Your task to perform on an android device: Open Google Maps and go to "Timeline" Image 0: 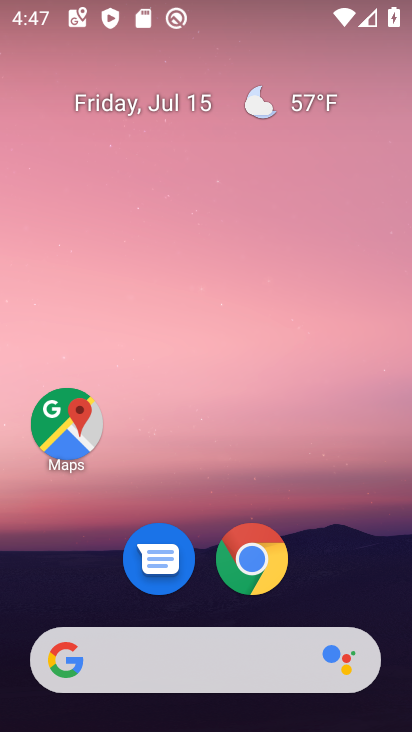
Step 0: click (44, 402)
Your task to perform on an android device: Open Google Maps and go to "Timeline" Image 1: 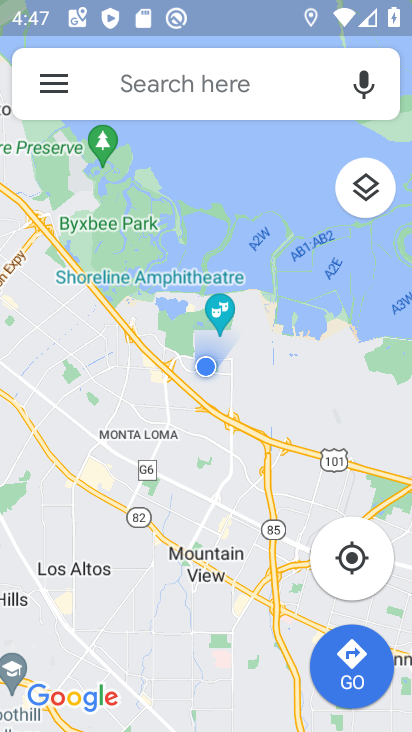
Step 1: click (49, 75)
Your task to perform on an android device: Open Google Maps and go to "Timeline" Image 2: 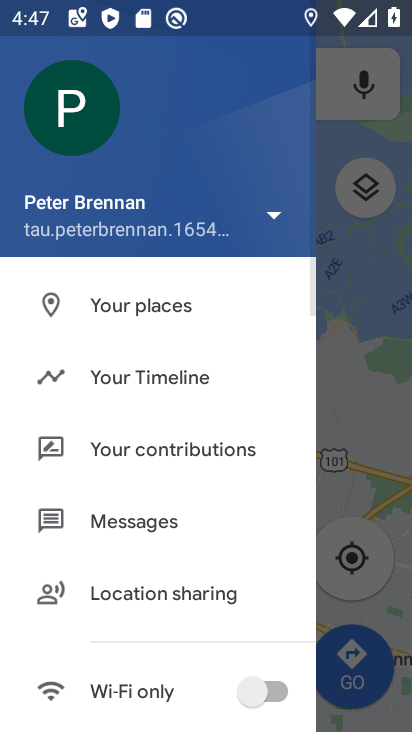
Step 2: click (153, 380)
Your task to perform on an android device: Open Google Maps and go to "Timeline" Image 3: 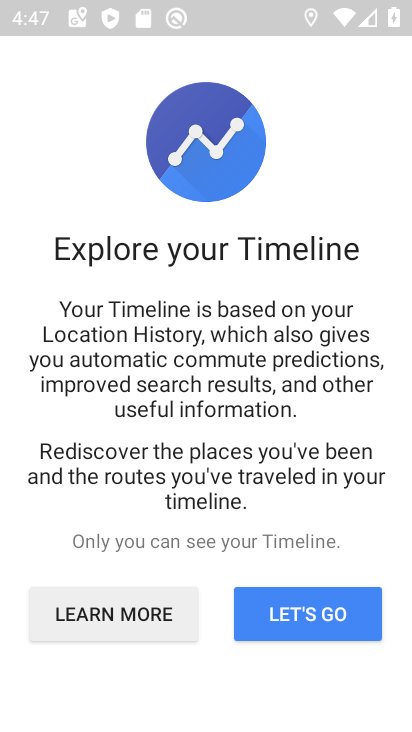
Step 3: click (355, 605)
Your task to perform on an android device: Open Google Maps and go to "Timeline" Image 4: 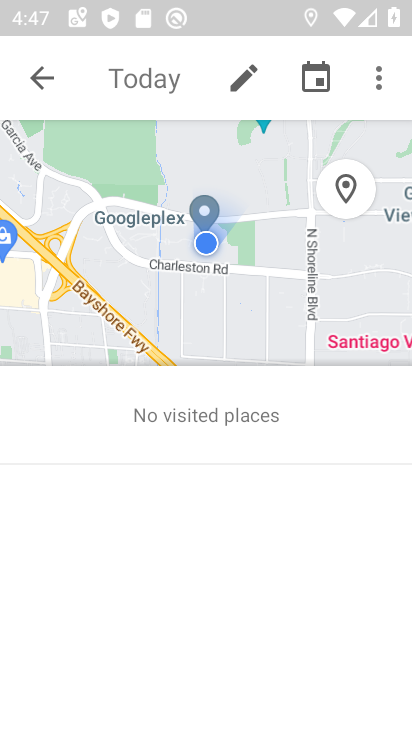
Step 4: click (383, 74)
Your task to perform on an android device: Open Google Maps and go to "Timeline" Image 5: 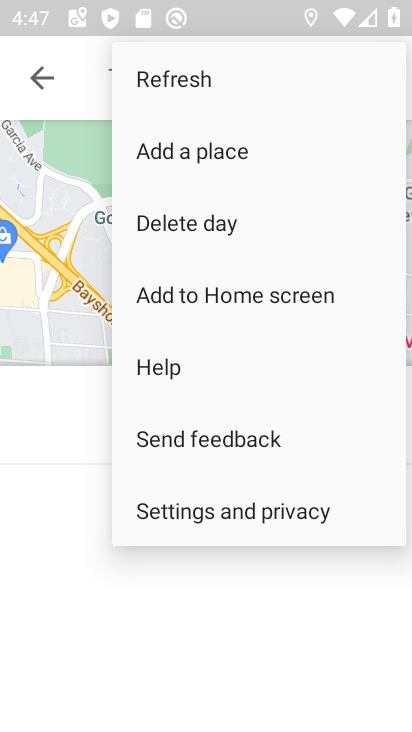
Step 5: click (159, 583)
Your task to perform on an android device: Open Google Maps and go to "Timeline" Image 6: 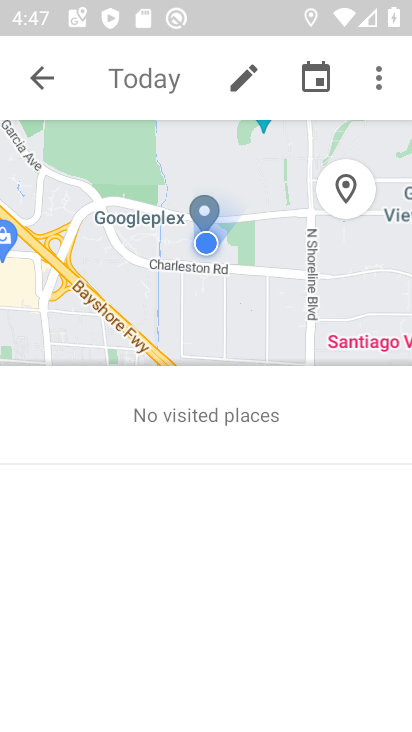
Step 6: task complete